Your task to perform on an android device: turn on data saver in the chrome app Image 0: 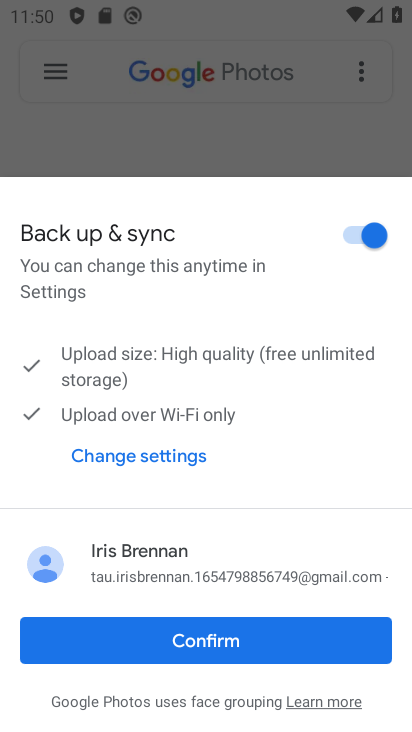
Step 0: press home button
Your task to perform on an android device: turn on data saver in the chrome app Image 1: 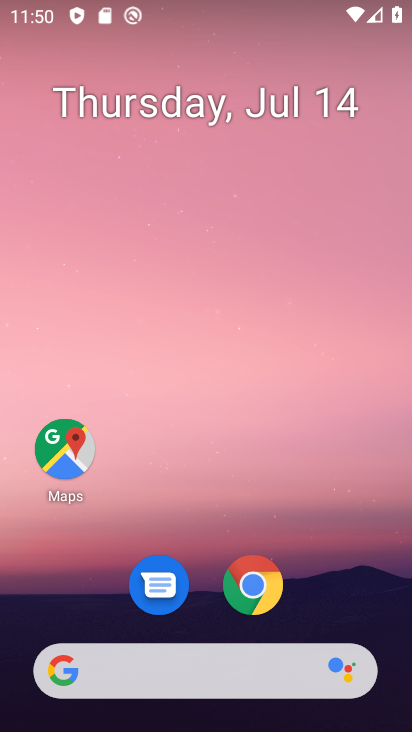
Step 1: click (257, 581)
Your task to perform on an android device: turn on data saver in the chrome app Image 2: 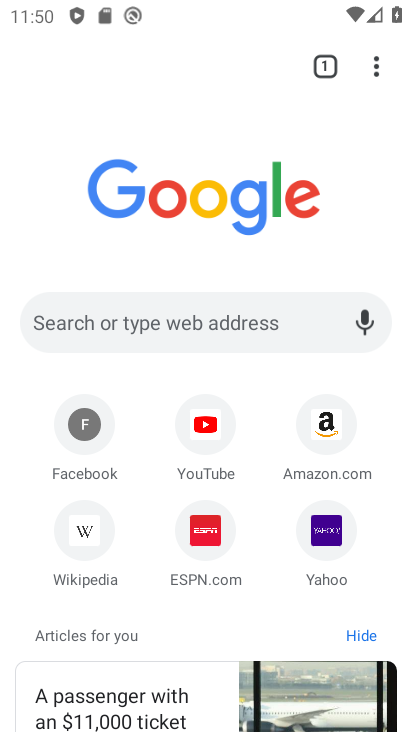
Step 2: click (376, 71)
Your task to perform on an android device: turn on data saver in the chrome app Image 3: 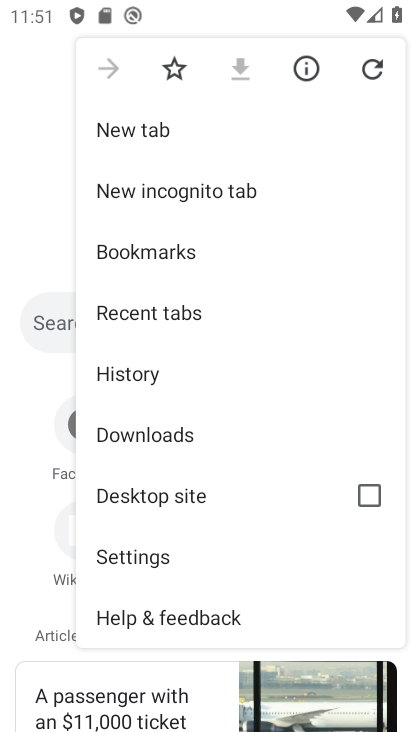
Step 3: click (160, 546)
Your task to perform on an android device: turn on data saver in the chrome app Image 4: 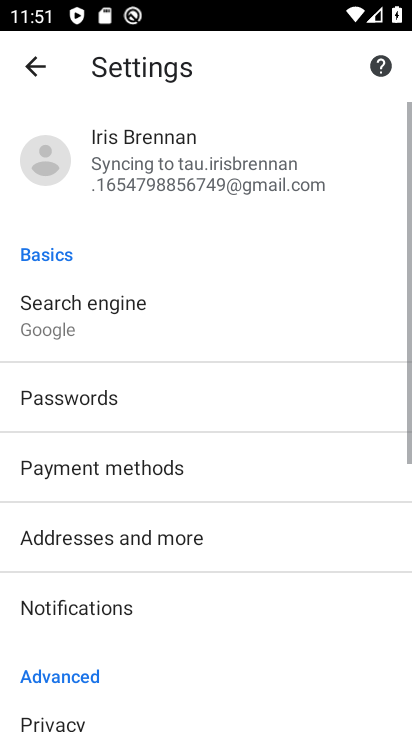
Step 4: drag from (160, 532) to (207, 55)
Your task to perform on an android device: turn on data saver in the chrome app Image 5: 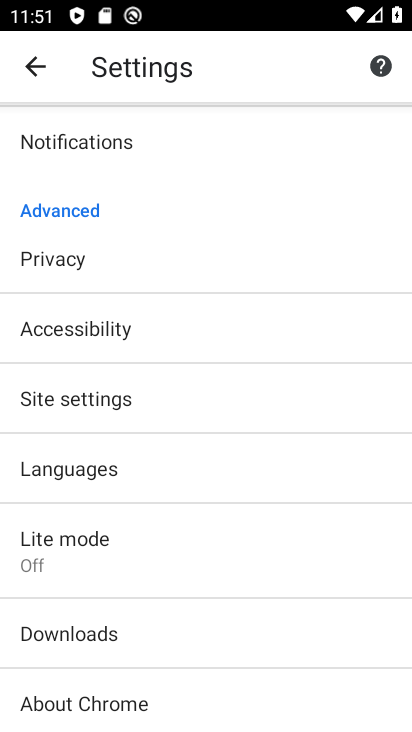
Step 5: click (141, 551)
Your task to perform on an android device: turn on data saver in the chrome app Image 6: 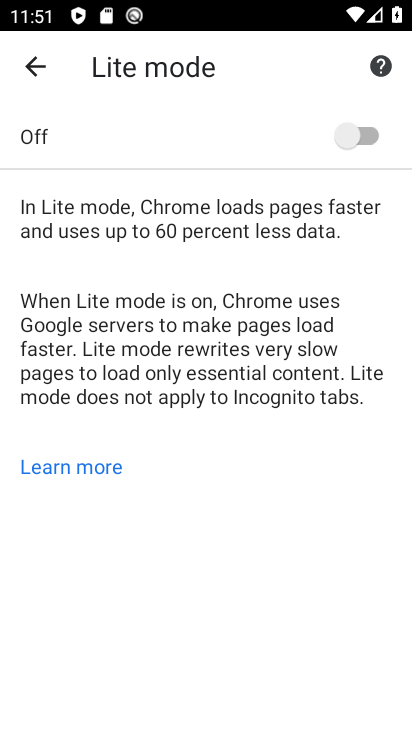
Step 6: click (370, 144)
Your task to perform on an android device: turn on data saver in the chrome app Image 7: 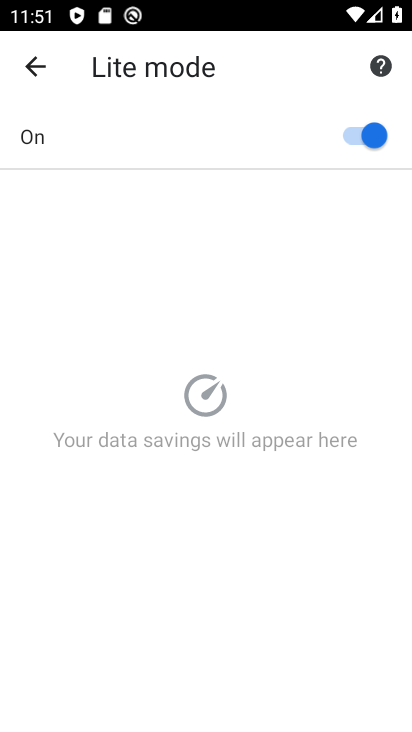
Step 7: task complete